Your task to perform on an android device: What's on my calendar tomorrow? Image 0: 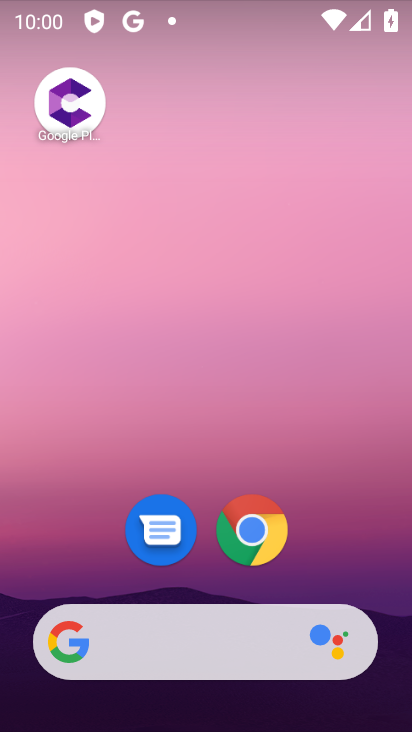
Step 0: drag from (345, 556) to (349, 134)
Your task to perform on an android device: What's on my calendar tomorrow? Image 1: 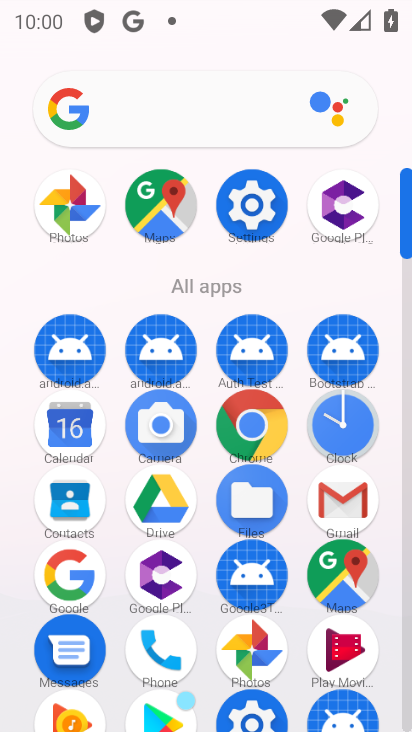
Step 1: click (90, 437)
Your task to perform on an android device: What's on my calendar tomorrow? Image 2: 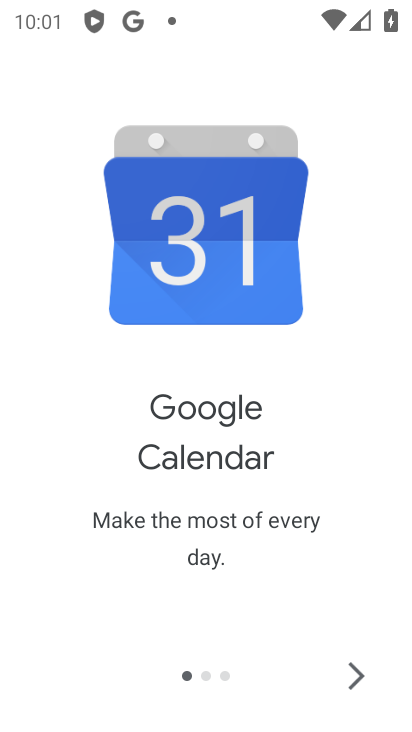
Step 2: click (348, 680)
Your task to perform on an android device: What's on my calendar tomorrow? Image 3: 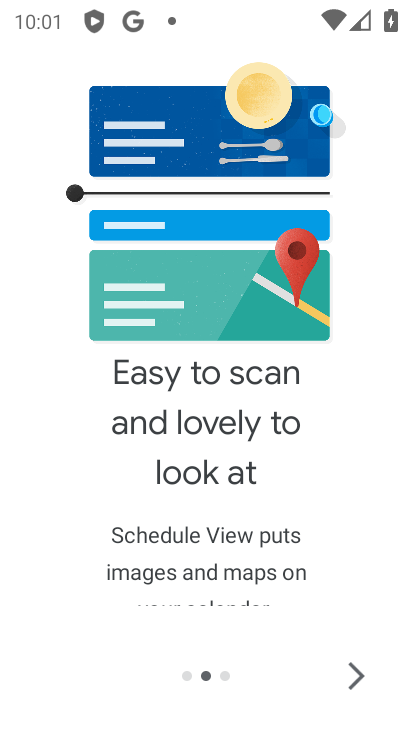
Step 3: click (348, 680)
Your task to perform on an android device: What's on my calendar tomorrow? Image 4: 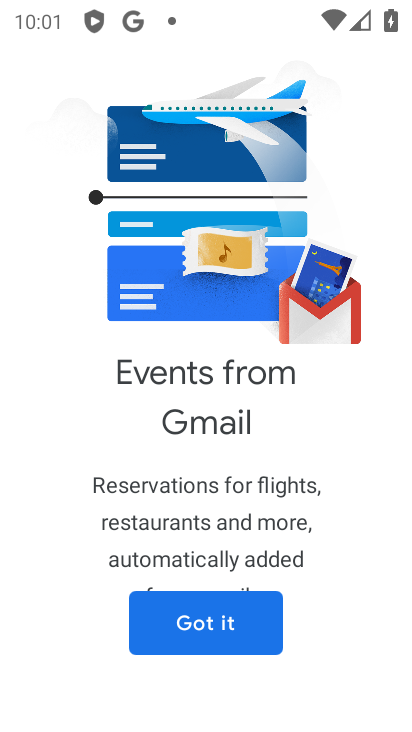
Step 4: click (193, 625)
Your task to perform on an android device: What's on my calendar tomorrow? Image 5: 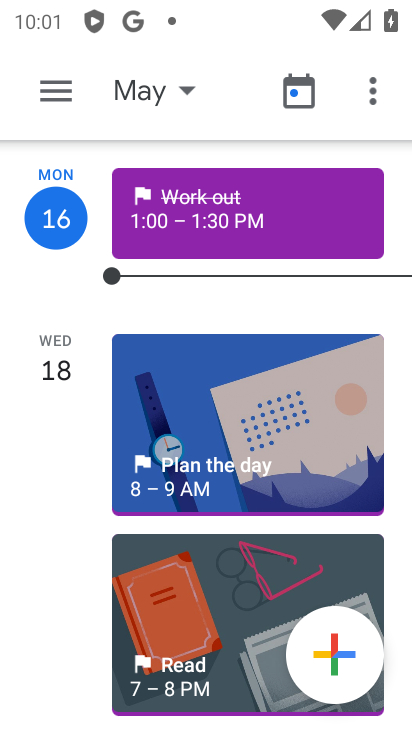
Step 5: click (188, 89)
Your task to perform on an android device: What's on my calendar tomorrow? Image 6: 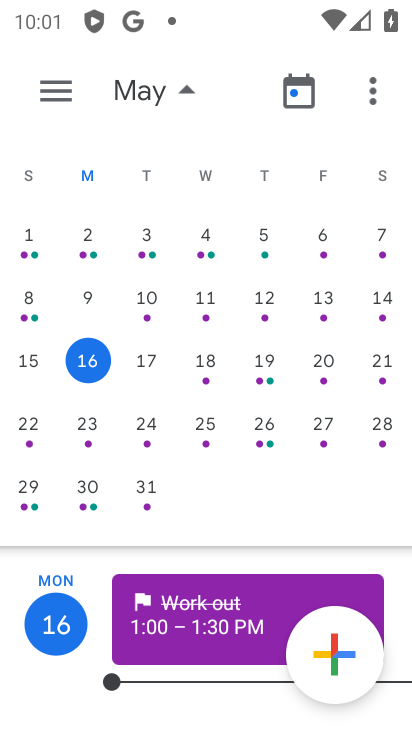
Step 6: click (207, 360)
Your task to perform on an android device: What's on my calendar tomorrow? Image 7: 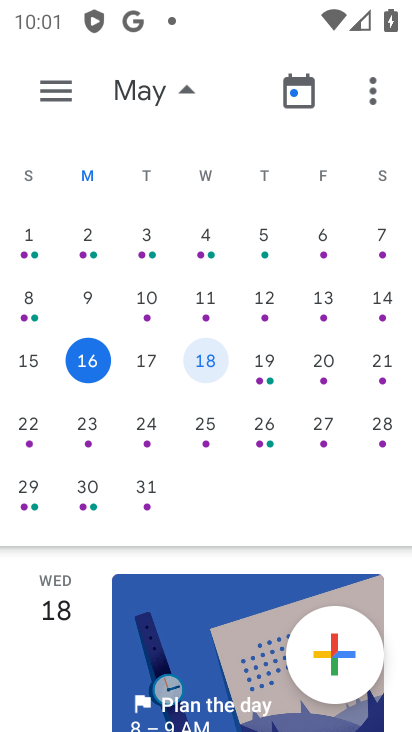
Step 7: task complete